Your task to perform on an android device: turn off priority inbox in the gmail app Image 0: 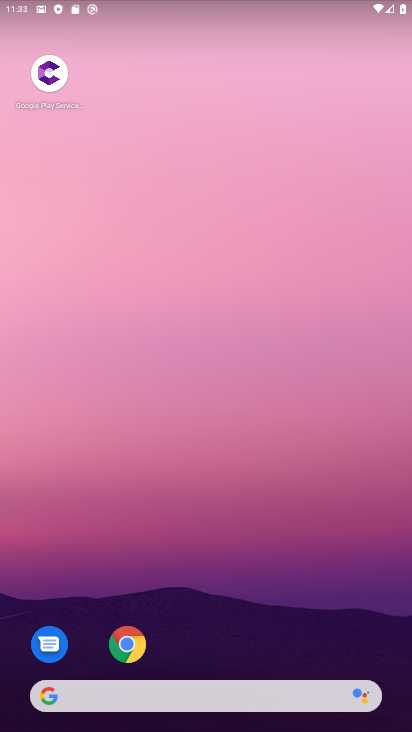
Step 0: drag from (291, 635) to (291, 268)
Your task to perform on an android device: turn off priority inbox in the gmail app Image 1: 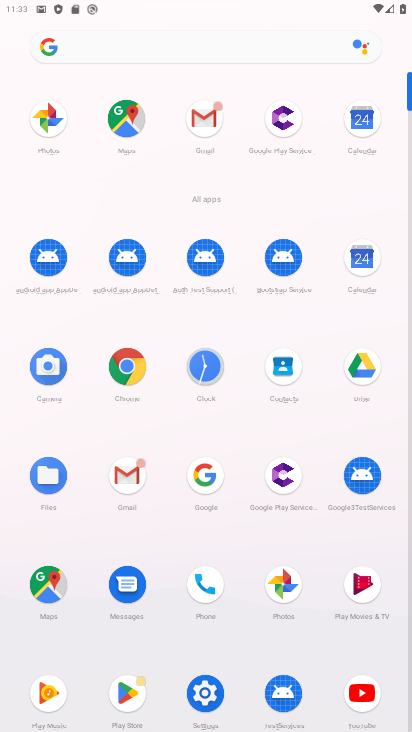
Step 1: click (205, 122)
Your task to perform on an android device: turn off priority inbox in the gmail app Image 2: 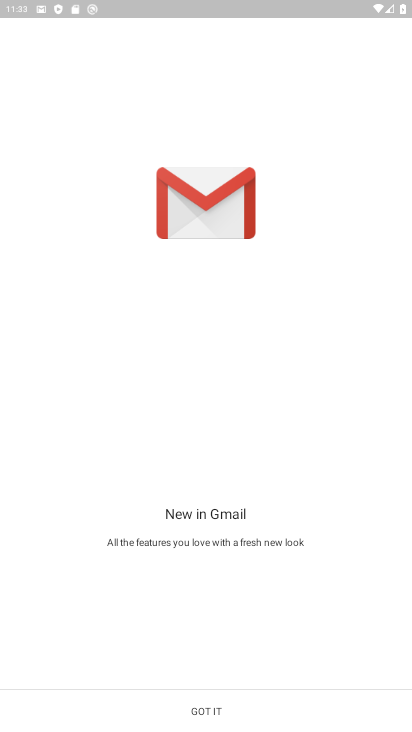
Step 2: click (223, 700)
Your task to perform on an android device: turn off priority inbox in the gmail app Image 3: 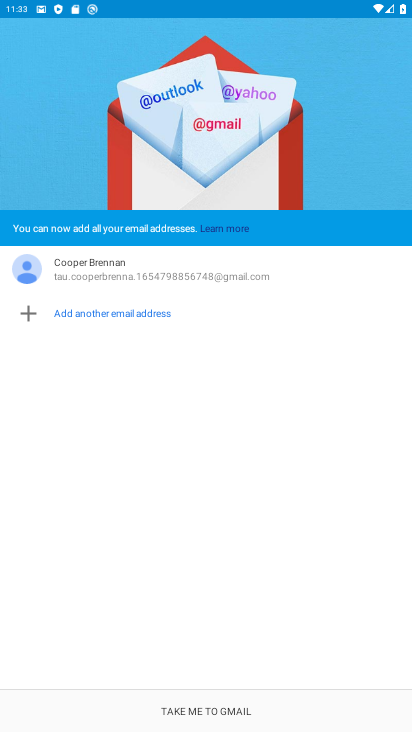
Step 3: click (223, 700)
Your task to perform on an android device: turn off priority inbox in the gmail app Image 4: 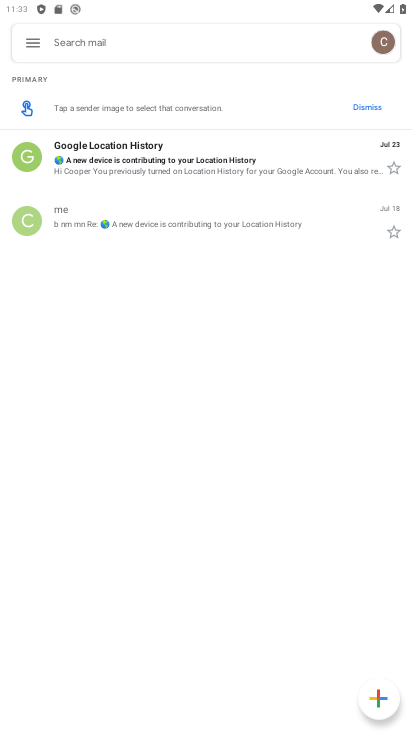
Step 4: click (36, 39)
Your task to perform on an android device: turn off priority inbox in the gmail app Image 5: 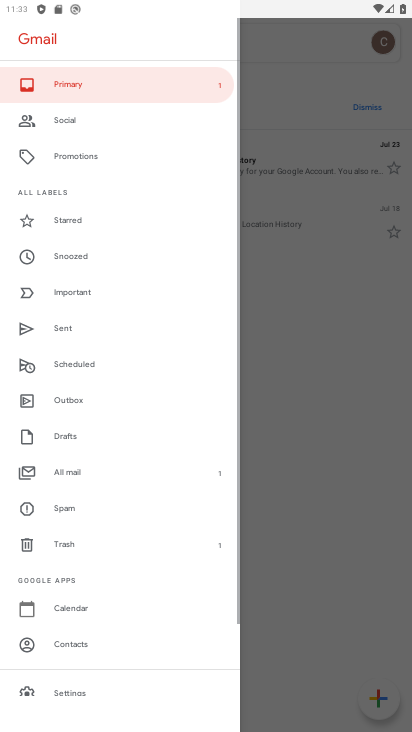
Step 5: click (75, 689)
Your task to perform on an android device: turn off priority inbox in the gmail app Image 6: 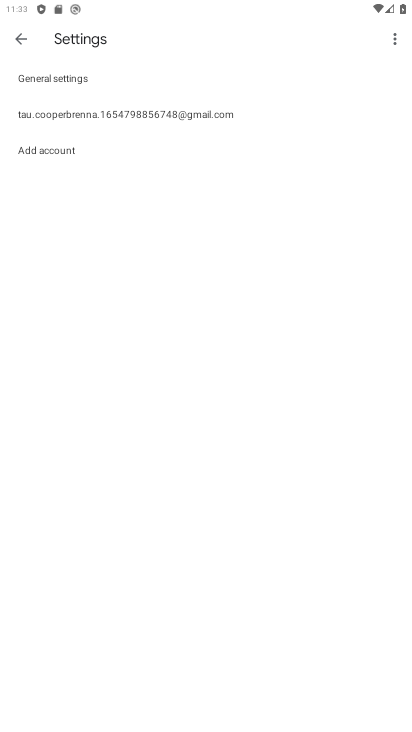
Step 6: click (81, 120)
Your task to perform on an android device: turn off priority inbox in the gmail app Image 7: 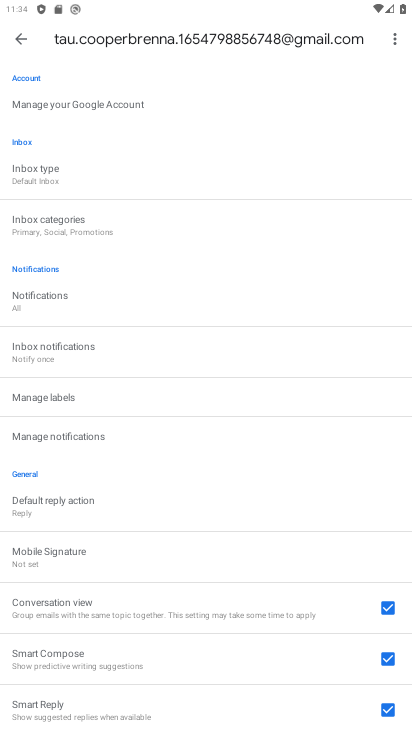
Step 7: click (62, 187)
Your task to perform on an android device: turn off priority inbox in the gmail app Image 8: 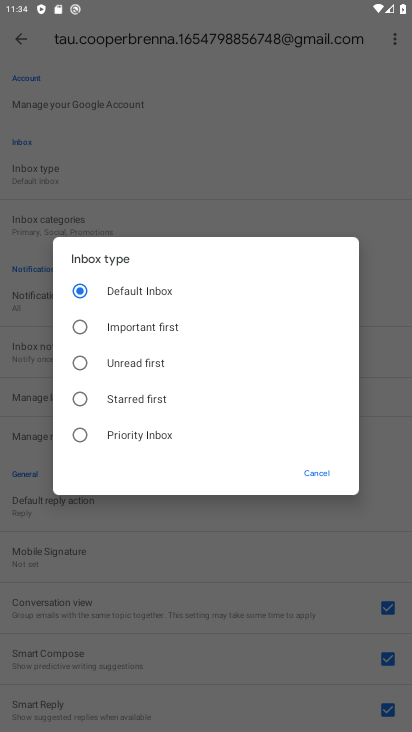
Step 8: click (80, 283)
Your task to perform on an android device: turn off priority inbox in the gmail app Image 9: 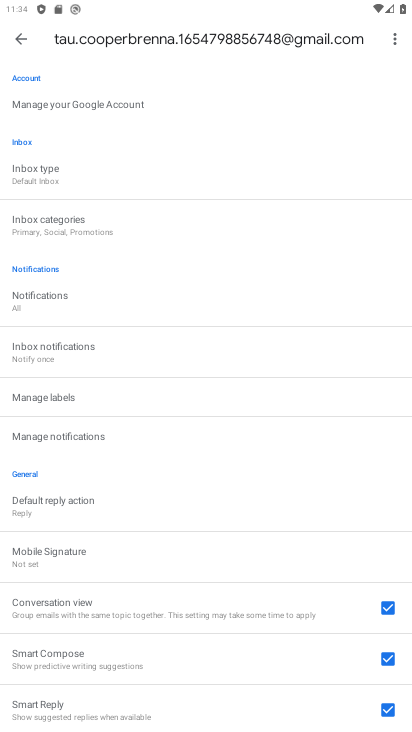
Step 9: task complete